Your task to perform on an android device: find snoozed emails in the gmail app Image 0: 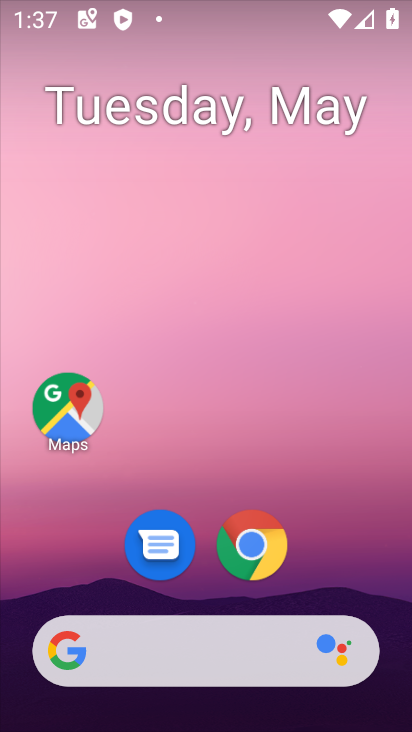
Step 0: drag from (366, 578) to (323, 90)
Your task to perform on an android device: find snoozed emails in the gmail app Image 1: 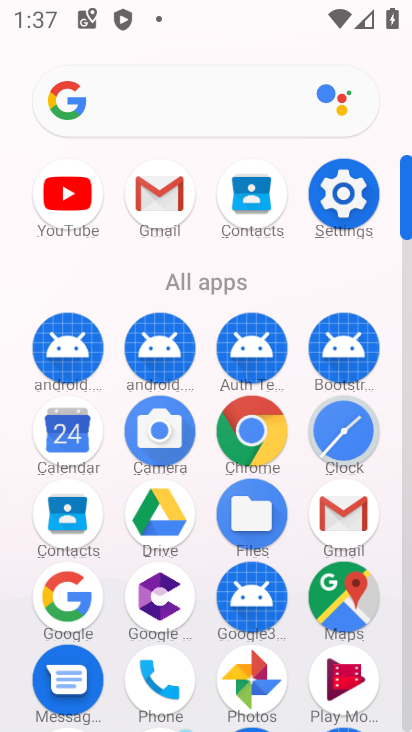
Step 1: click (344, 512)
Your task to perform on an android device: find snoozed emails in the gmail app Image 2: 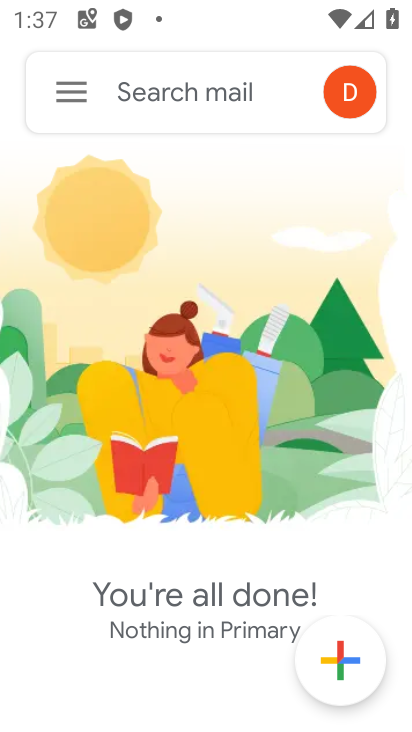
Step 2: click (72, 92)
Your task to perform on an android device: find snoozed emails in the gmail app Image 3: 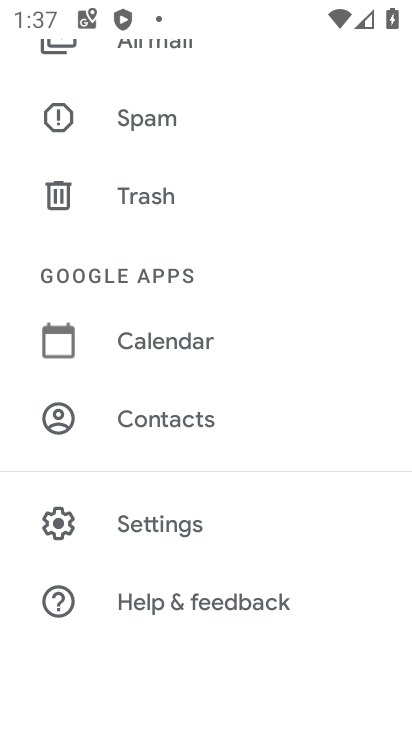
Step 3: drag from (262, 183) to (286, 586)
Your task to perform on an android device: find snoozed emails in the gmail app Image 4: 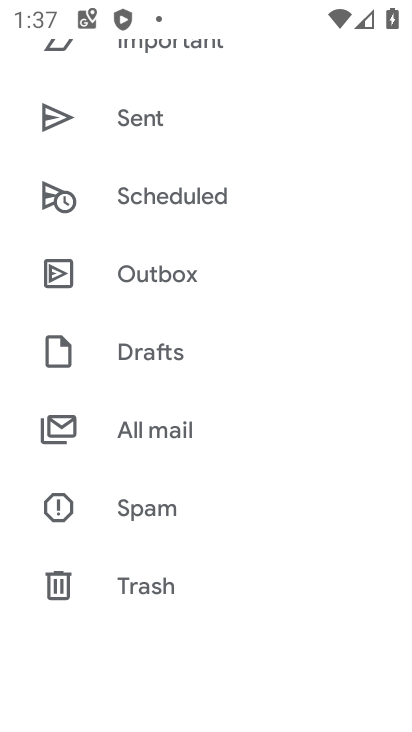
Step 4: drag from (296, 126) to (268, 509)
Your task to perform on an android device: find snoozed emails in the gmail app Image 5: 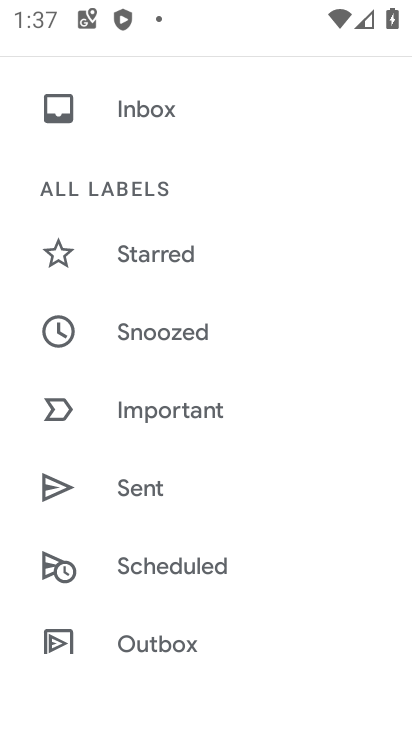
Step 5: click (163, 326)
Your task to perform on an android device: find snoozed emails in the gmail app Image 6: 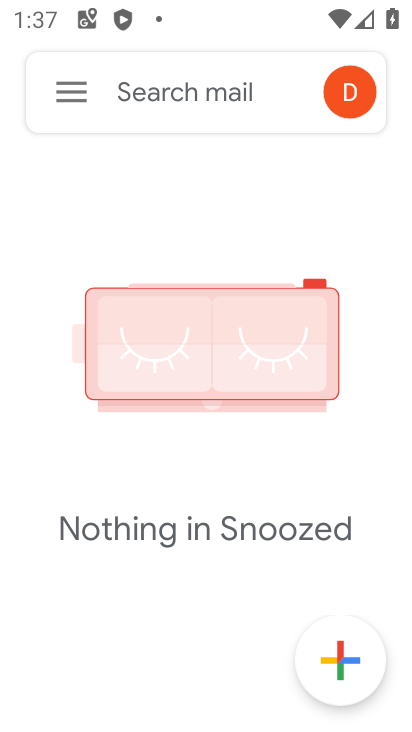
Step 6: task complete